Your task to perform on an android device: Go to Google maps Image 0: 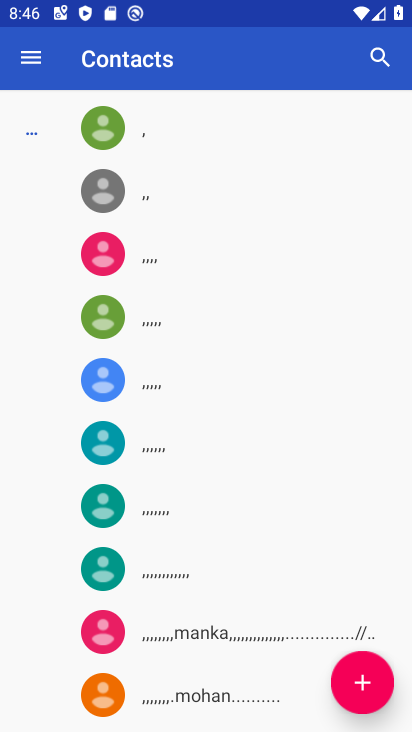
Step 0: press home button
Your task to perform on an android device: Go to Google maps Image 1: 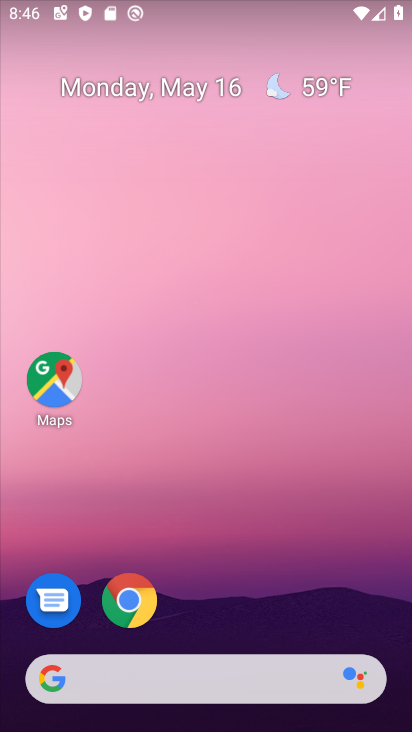
Step 1: drag from (156, 660) to (219, 427)
Your task to perform on an android device: Go to Google maps Image 2: 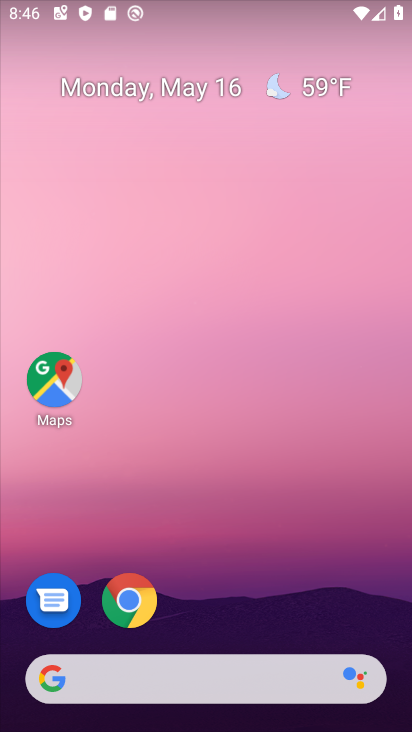
Step 2: drag from (260, 657) to (284, 320)
Your task to perform on an android device: Go to Google maps Image 3: 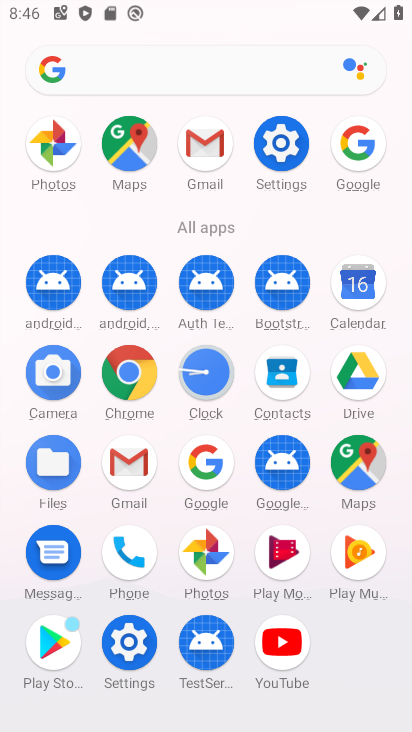
Step 3: click (204, 467)
Your task to perform on an android device: Go to Google maps Image 4: 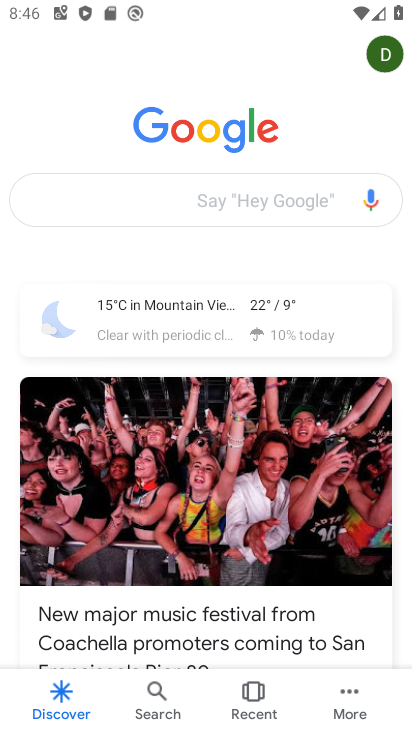
Step 4: task complete